Your task to perform on an android device: Go to calendar. Show me events next week Image 0: 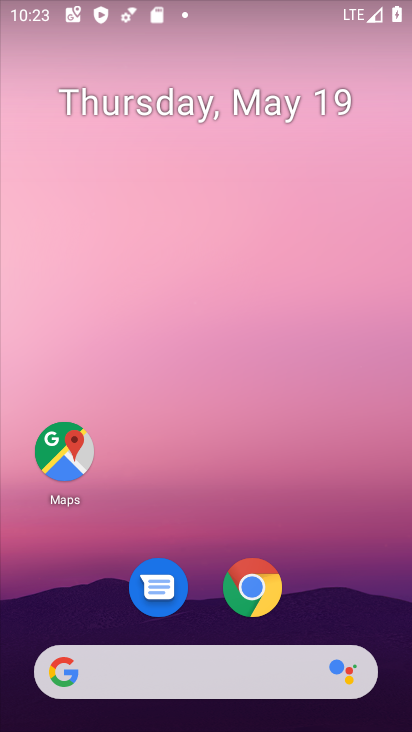
Step 0: click (239, 104)
Your task to perform on an android device: Go to calendar. Show me events next week Image 1: 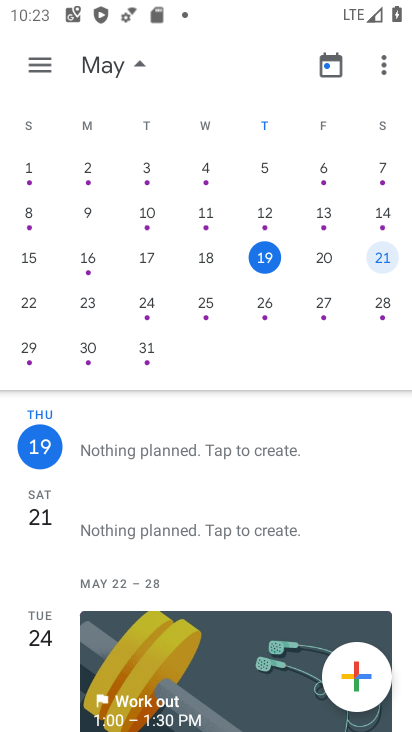
Step 1: click (273, 305)
Your task to perform on an android device: Go to calendar. Show me events next week Image 2: 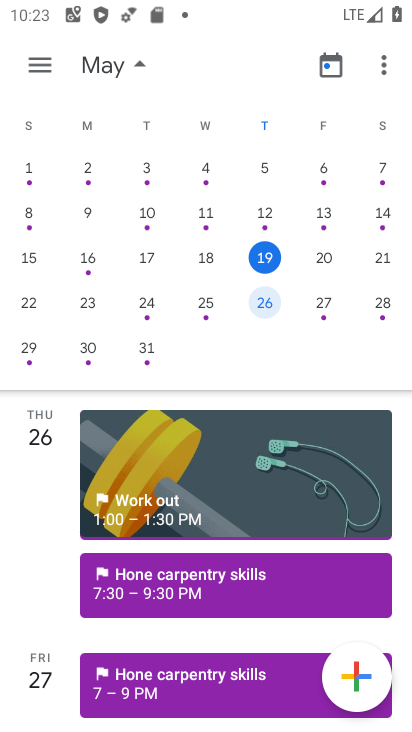
Step 2: click (126, 562)
Your task to perform on an android device: Go to calendar. Show me events next week Image 3: 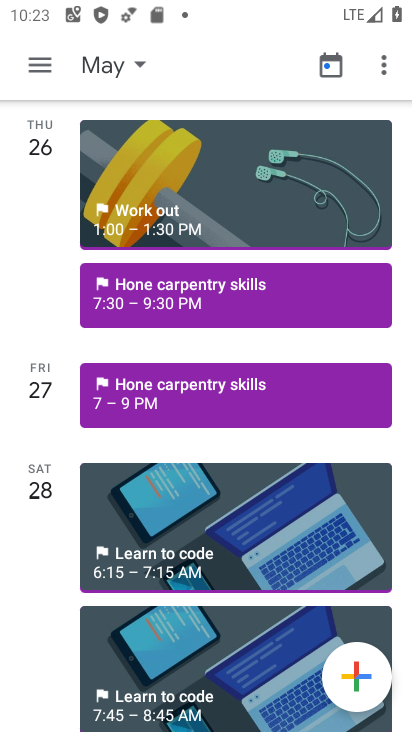
Step 3: task complete